Your task to perform on an android device: check storage Image 0: 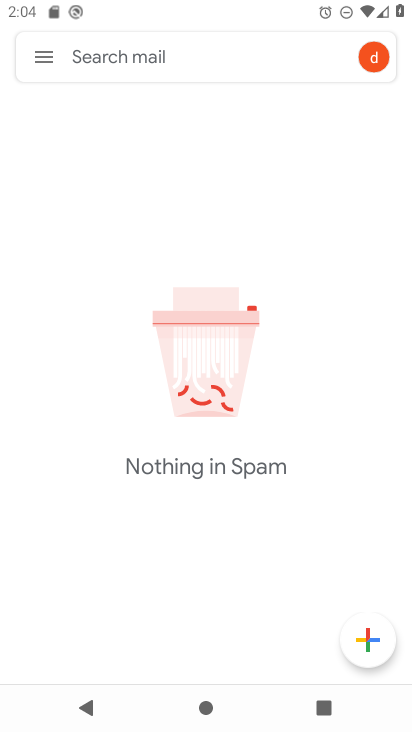
Step 0: press home button
Your task to perform on an android device: check storage Image 1: 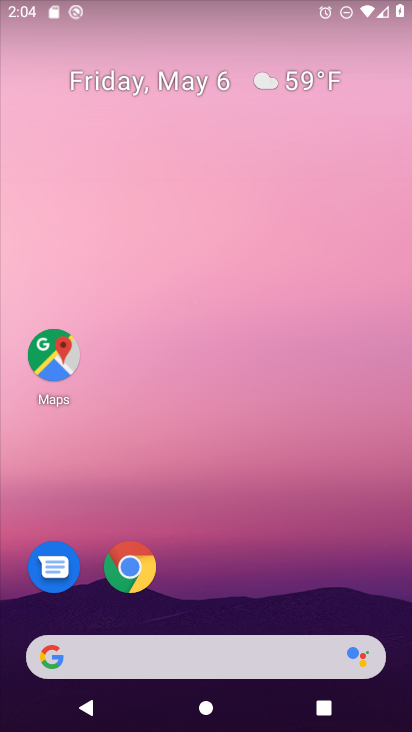
Step 1: drag from (298, 516) to (288, 29)
Your task to perform on an android device: check storage Image 2: 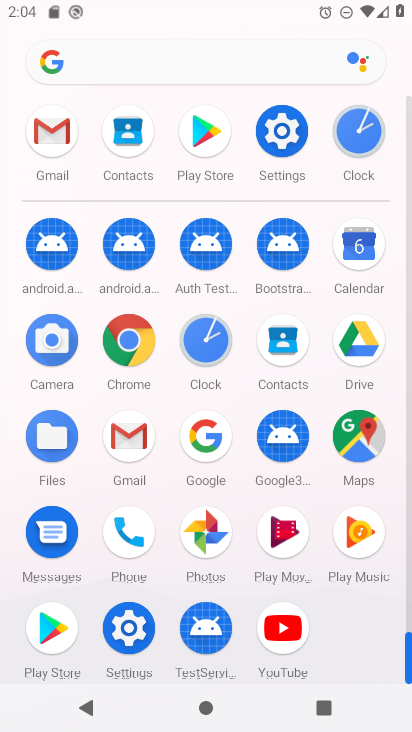
Step 2: click (298, 139)
Your task to perform on an android device: check storage Image 3: 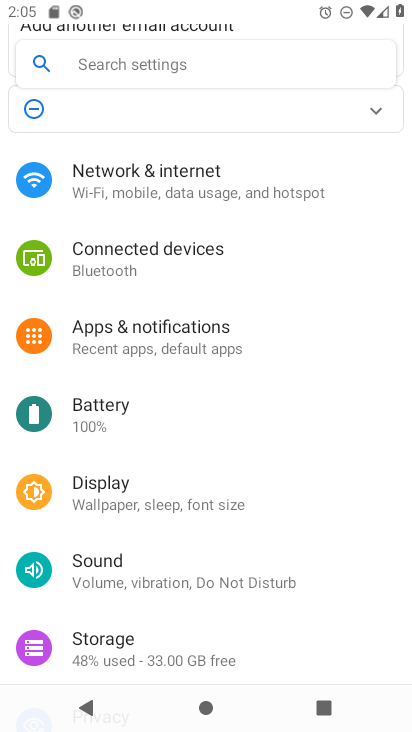
Step 3: click (213, 646)
Your task to perform on an android device: check storage Image 4: 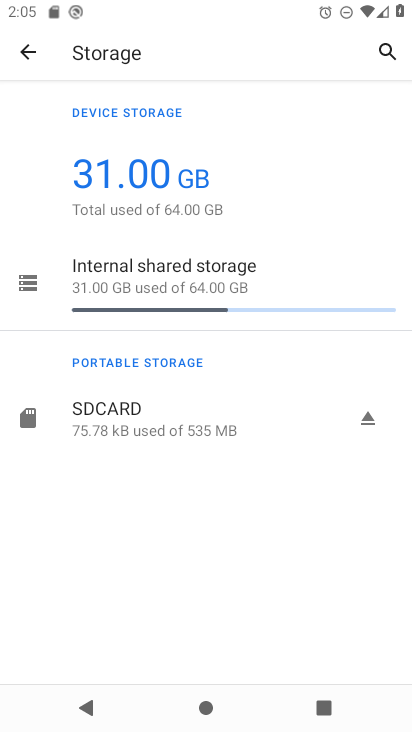
Step 4: drag from (214, 636) to (243, 439)
Your task to perform on an android device: check storage Image 5: 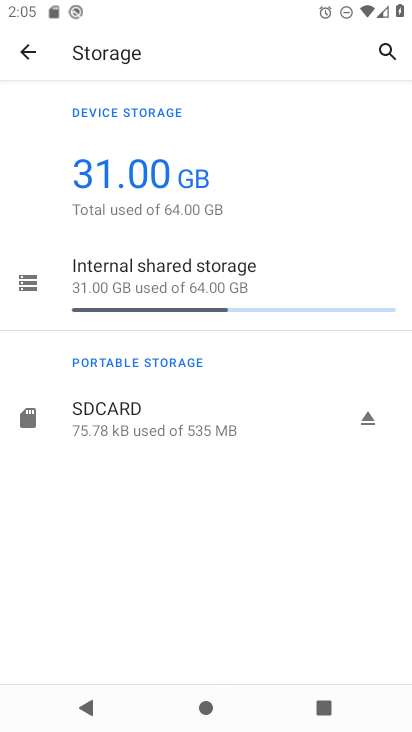
Step 5: click (229, 543)
Your task to perform on an android device: check storage Image 6: 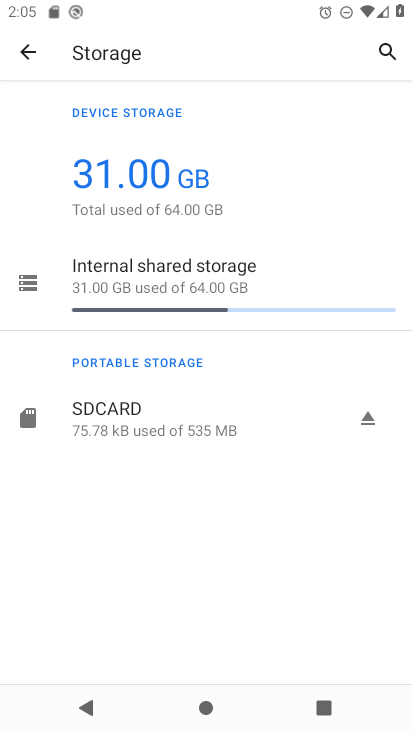
Step 6: task complete